Your task to perform on an android device: Go to eBay Image 0: 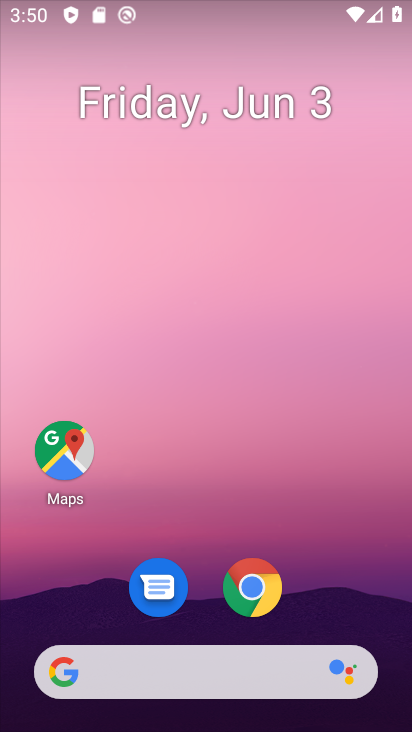
Step 0: click (262, 578)
Your task to perform on an android device: Go to eBay Image 1: 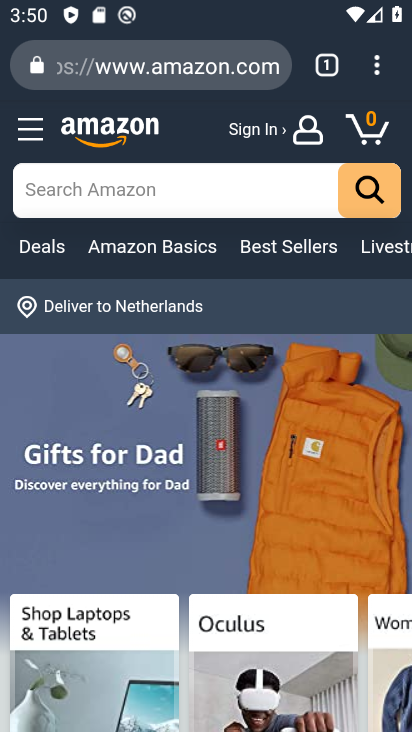
Step 1: click (253, 67)
Your task to perform on an android device: Go to eBay Image 2: 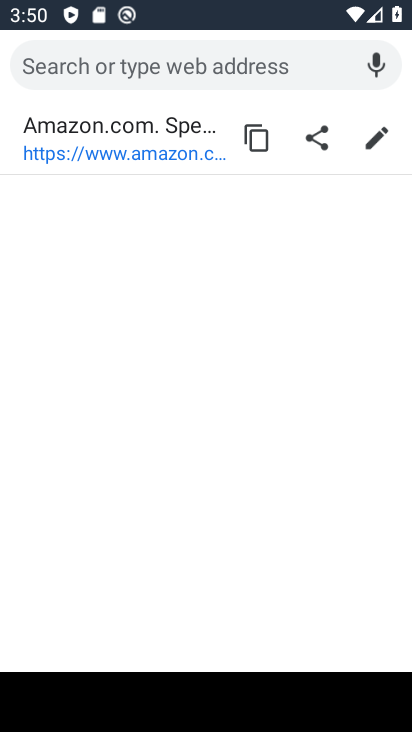
Step 2: type "ebay"
Your task to perform on an android device: Go to eBay Image 3: 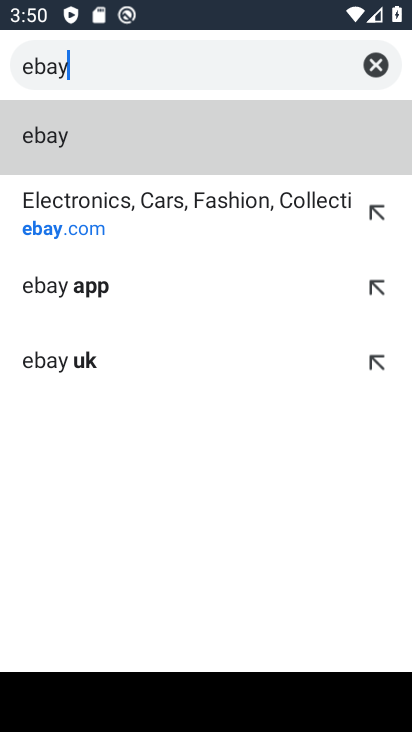
Step 3: click (192, 190)
Your task to perform on an android device: Go to eBay Image 4: 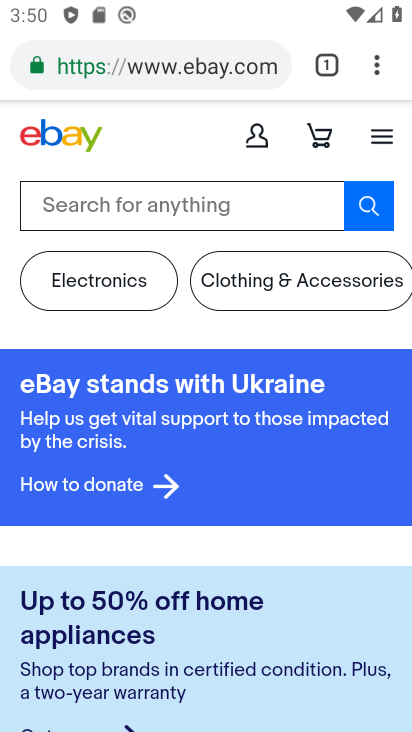
Step 4: task complete